Your task to perform on an android device: open a new tab in the chrome app Image 0: 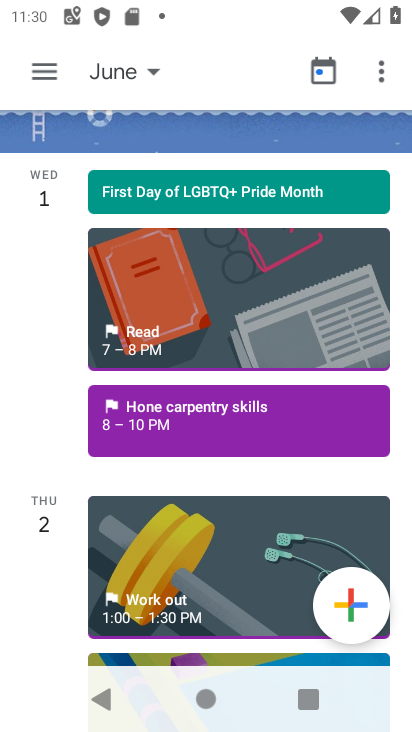
Step 0: press home button
Your task to perform on an android device: open a new tab in the chrome app Image 1: 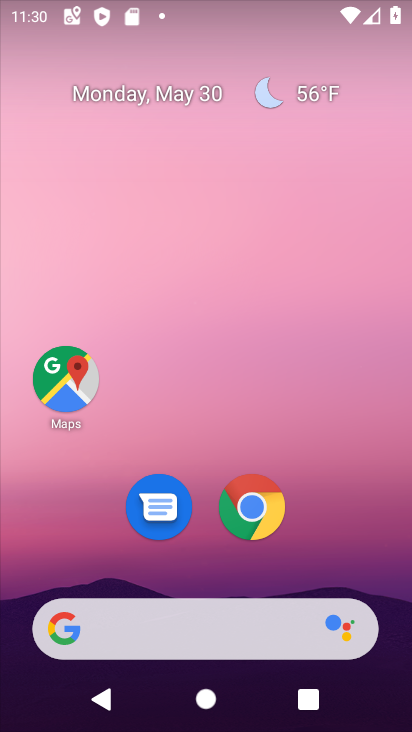
Step 1: click (251, 493)
Your task to perform on an android device: open a new tab in the chrome app Image 2: 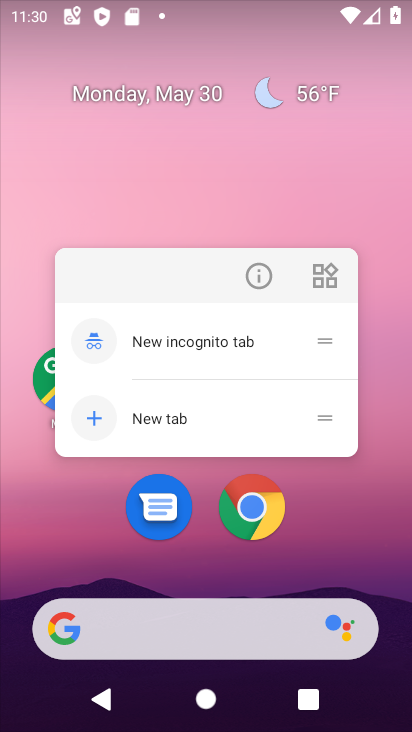
Step 2: click (91, 410)
Your task to perform on an android device: open a new tab in the chrome app Image 3: 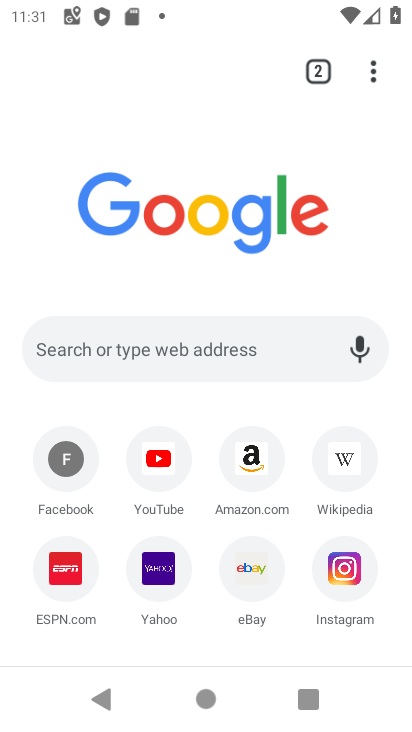
Step 3: task complete